Your task to perform on an android device: open a bookmark in the chrome app Image 0: 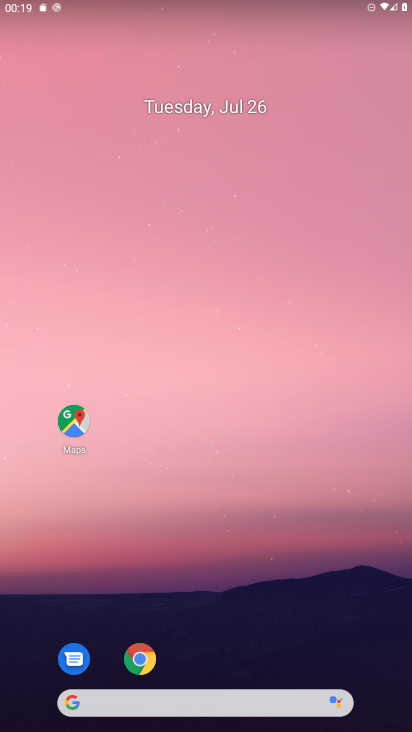
Step 0: click (146, 658)
Your task to perform on an android device: open a bookmark in the chrome app Image 1: 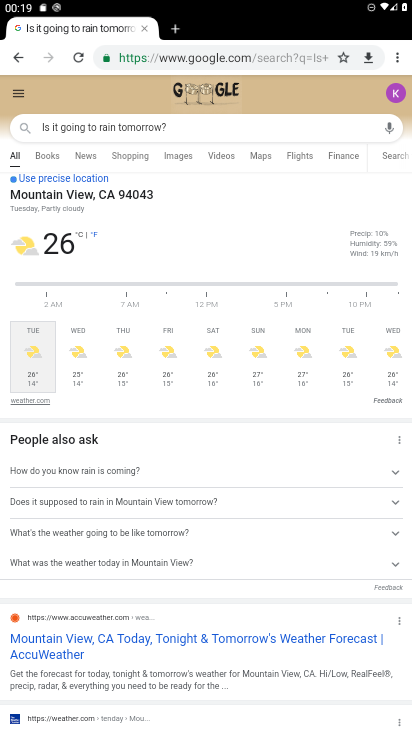
Step 1: task complete